Your task to perform on an android device: read, delete, or share a saved page in the chrome app Image 0: 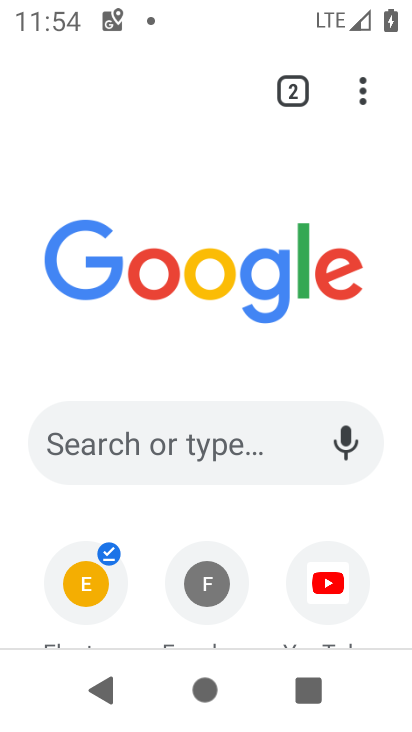
Step 0: press home button
Your task to perform on an android device: read, delete, or share a saved page in the chrome app Image 1: 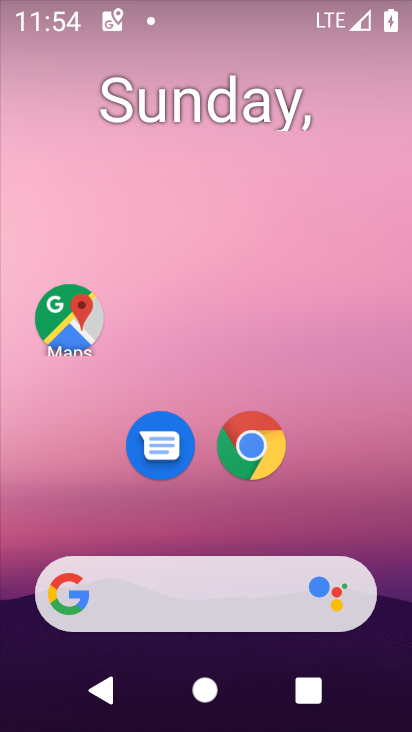
Step 1: click (251, 476)
Your task to perform on an android device: read, delete, or share a saved page in the chrome app Image 2: 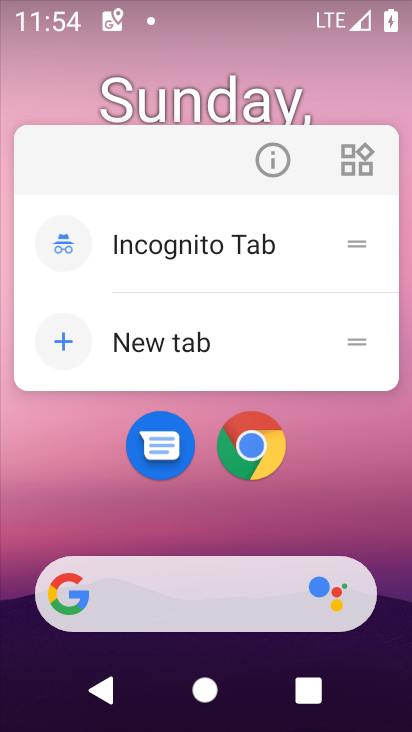
Step 2: click (250, 469)
Your task to perform on an android device: read, delete, or share a saved page in the chrome app Image 3: 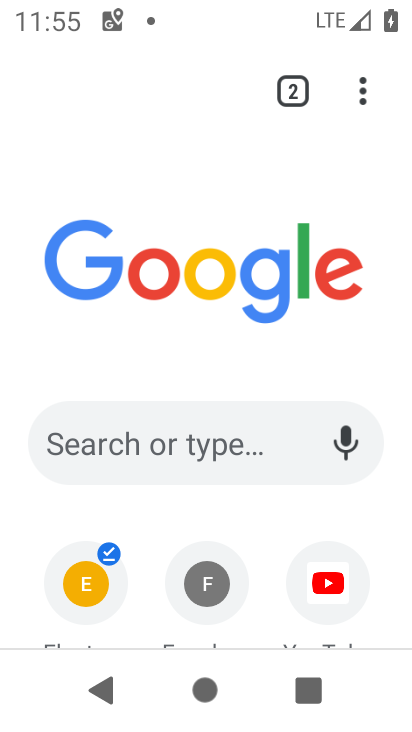
Step 3: click (363, 96)
Your task to perform on an android device: read, delete, or share a saved page in the chrome app Image 4: 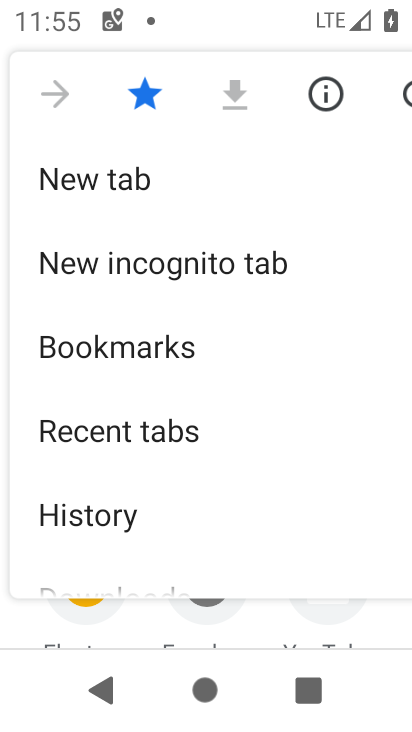
Step 4: drag from (283, 466) to (335, 95)
Your task to perform on an android device: read, delete, or share a saved page in the chrome app Image 5: 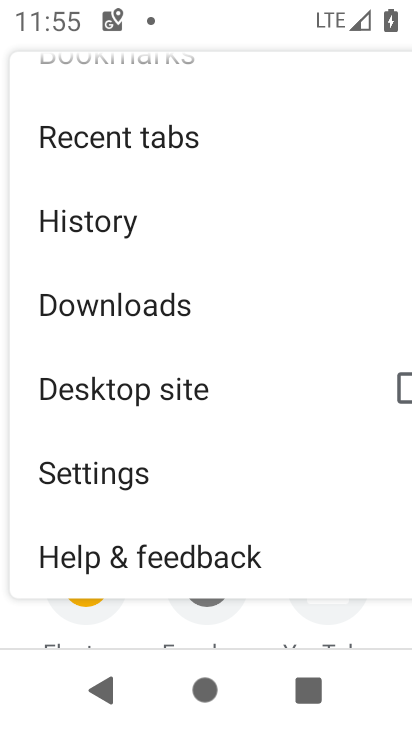
Step 5: click (151, 480)
Your task to perform on an android device: read, delete, or share a saved page in the chrome app Image 6: 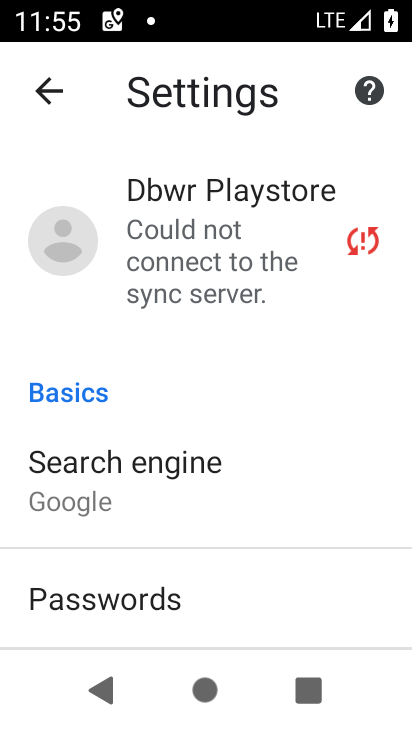
Step 6: drag from (261, 609) to (310, 197)
Your task to perform on an android device: read, delete, or share a saved page in the chrome app Image 7: 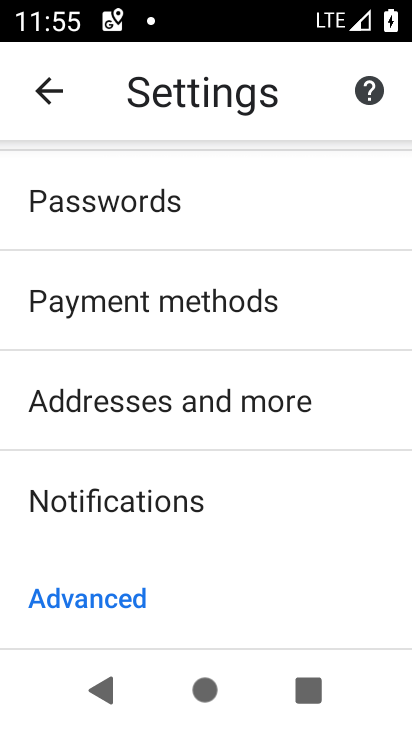
Step 7: drag from (270, 477) to (298, 124)
Your task to perform on an android device: read, delete, or share a saved page in the chrome app Image 8: 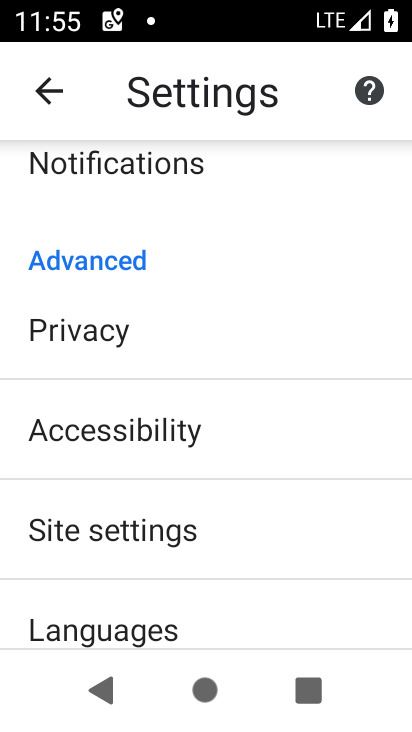
Step 8: drag from (238, 502) to (274, 139)
Your task to perform on an android device: read, delete, or share a saved page in the chrome app Image 9: 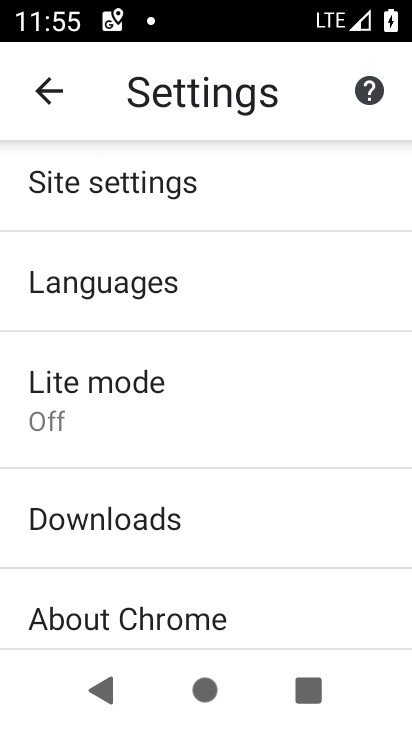
Step 9: click (277, 187)
Your task to perform on an android device: read, delete, or share a saved page in the chrome app Image 10: 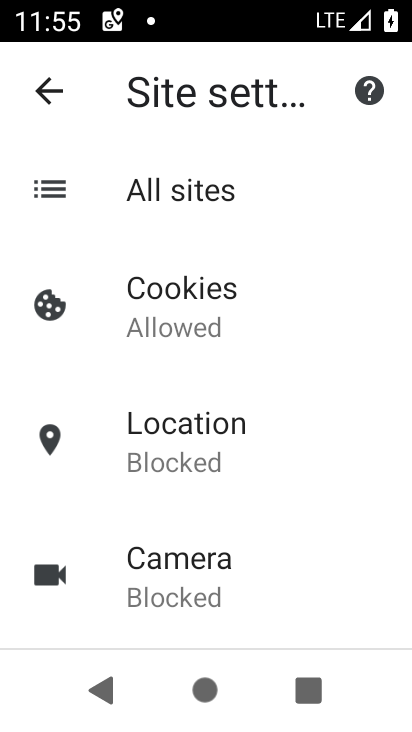
Step 10: drag from (268, 556) to (303, 31)
Your task to perform on an android device: read, delete, or share a saved page in the chrome app Image 11: 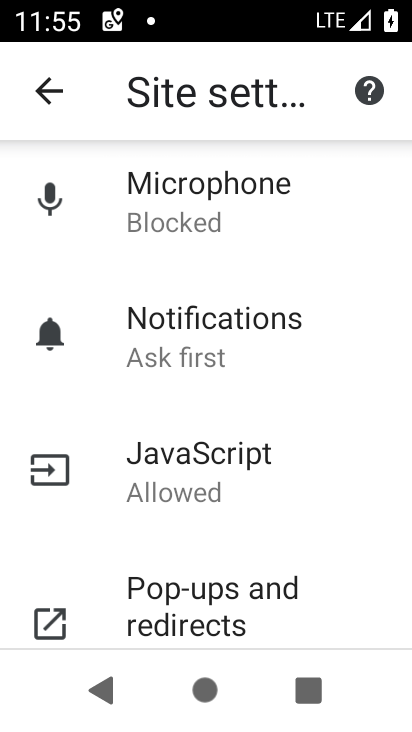
Step 11: drag from (316, 433) to (409, 38)
Your task to perform on an android device: read, delete, or share a saved page in the chrome app Image 12: 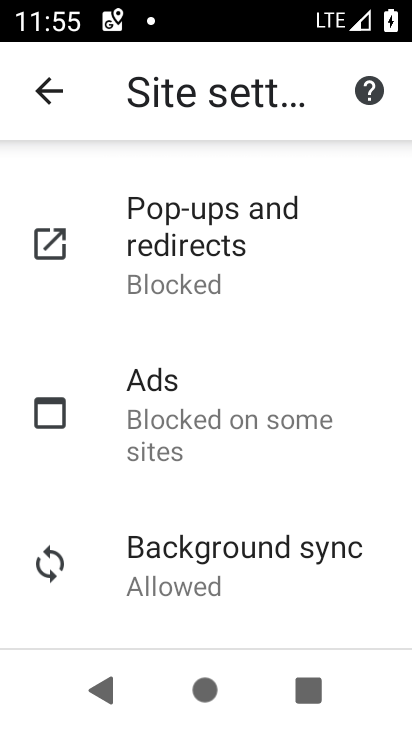
Step 12: drag from (273, 522) to (311, 136)
Your task to perform on an android device: read, delete, or share a saved page in the chrome app Image 13: 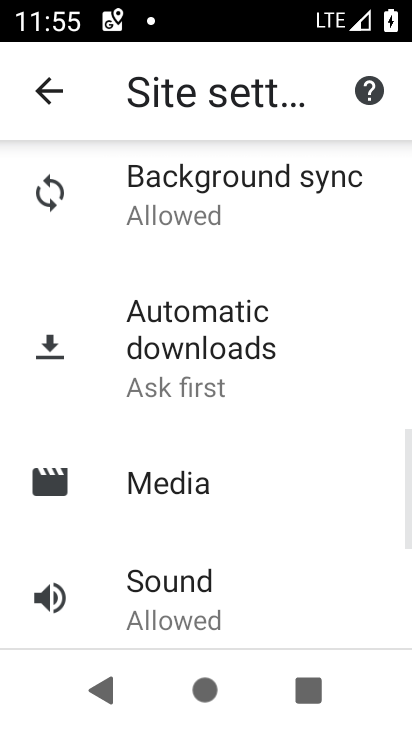
Step 13: drag from (248, 598) to (399, 155)
Your task to perform on an android device: read, delete, or share a saved page in the chrome app Image 14: 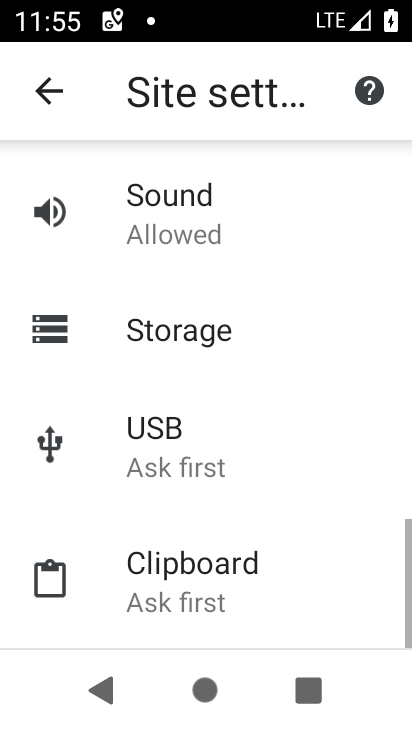
Step 14: drag from (291, 580) to (301, 221)
Your task to perform on an android device: read, delete, or share a saved page in the chrome app Image 15: 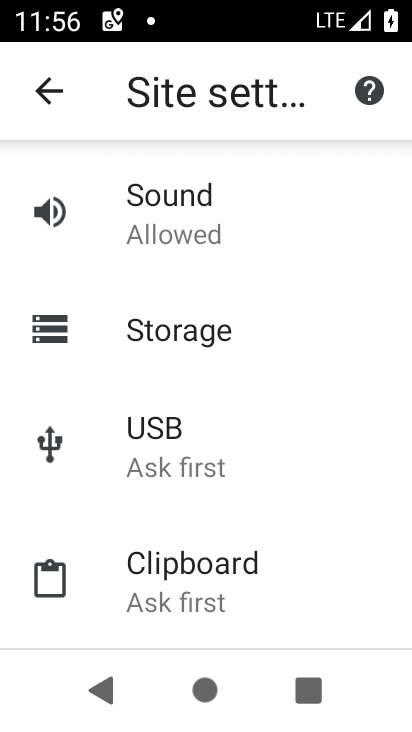
Step 15: press back button
Your task to perform on an android device: read, delete, or share a saved page in the chrome app Image 16: 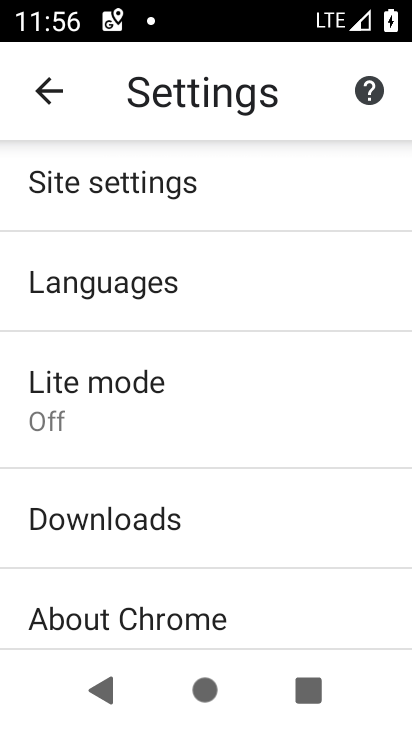
Step 16: drag from (314, 188) to (258, 518)
Your task to perform on an android device: read, delete, or share a saved page in the chrome app Image 17: 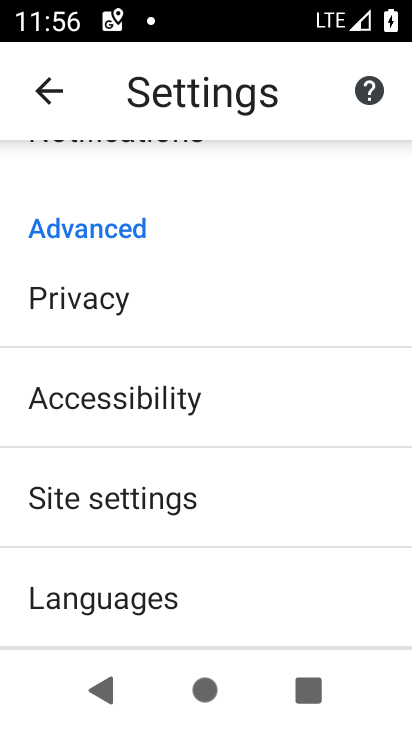
Step 17: drag from (227, 568) to (332, 169)
Your task to perform on an android device: read, delete, or share a saved page in the chrome app Image 18: 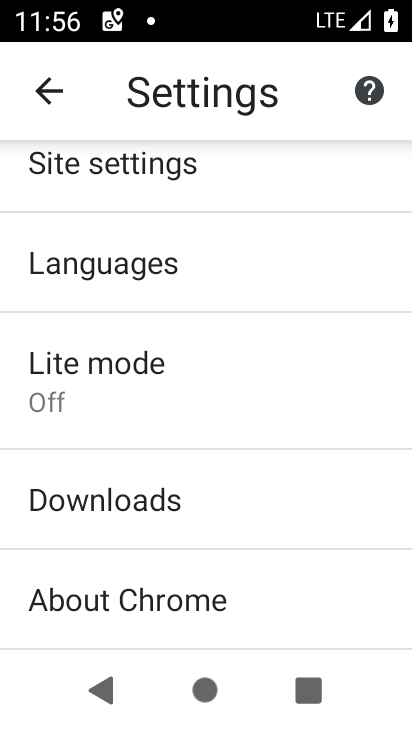
Step 18: click (208, 485)
Your task to perform on an android device: read, delete, or share a saved page in the chrome app Image 19: 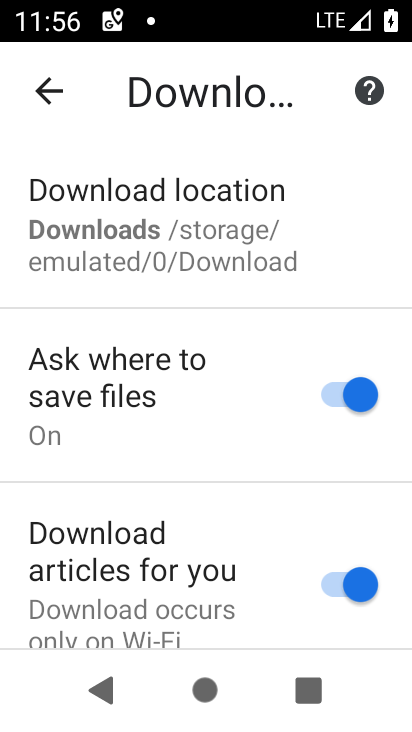
Step 19: drag from (182, 561) to (281, 175)
Your task to perform on an android device: read, delete, or share a saved page in the chrome app Image 20: 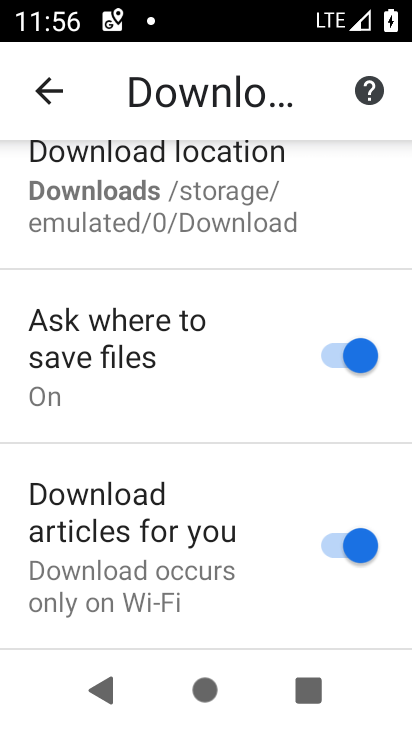
Step 20: drag from (172, 639) to (243, 262)
Your task to perform on an android device: read, delete, or share a saved page in the chrome app Image 21: 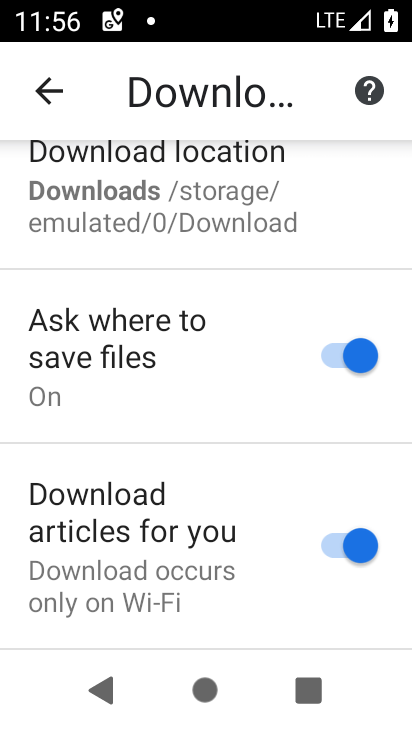
Step 21: click (252, 177)
Your task to perform on an android device: read, delete, or share a saved page in the chrome app Image 22: 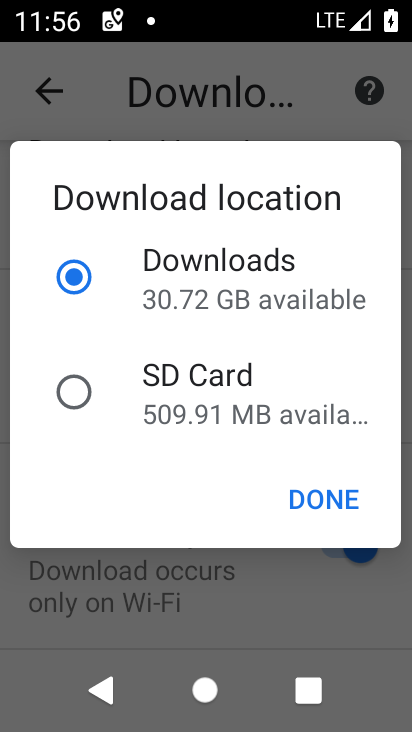
Step 22: click (321, 499)
Your task to perform on an android device: read, delete, or share a saved page in the chrome app Image 23: 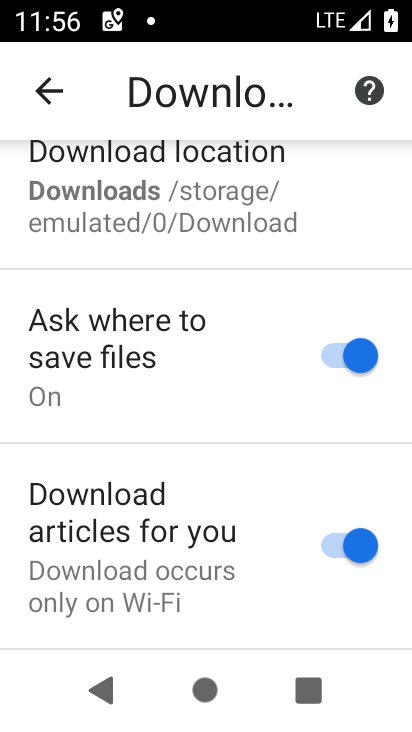
Step 23: task complete